Your task to perform on an android device: turn off notifications settings in the gmail app Image 0: 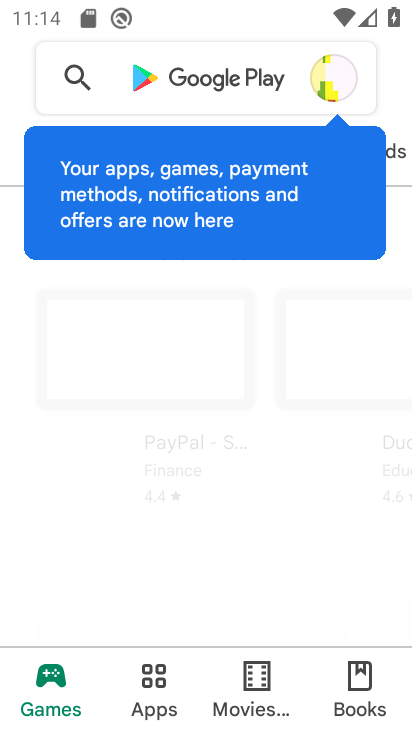
Step 0: press home button
Your task to perform on an android device: turn off notifications settings in the gmail app Image 1: 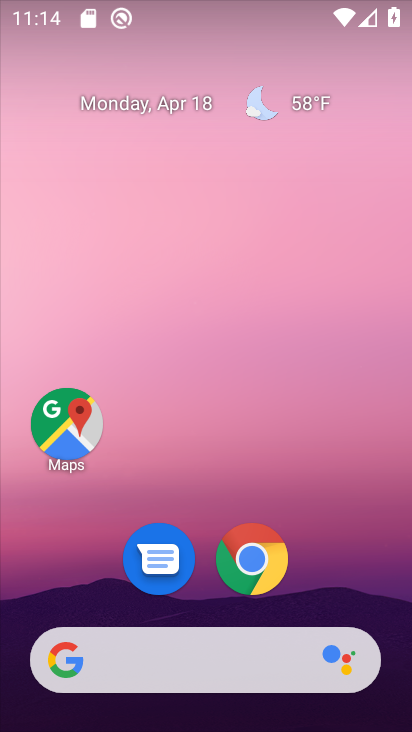
Step 1: drag from (337, 565) to (288, 58)
Your task to perform on an android device: turn off notifications settings in the gmail app Image 2: 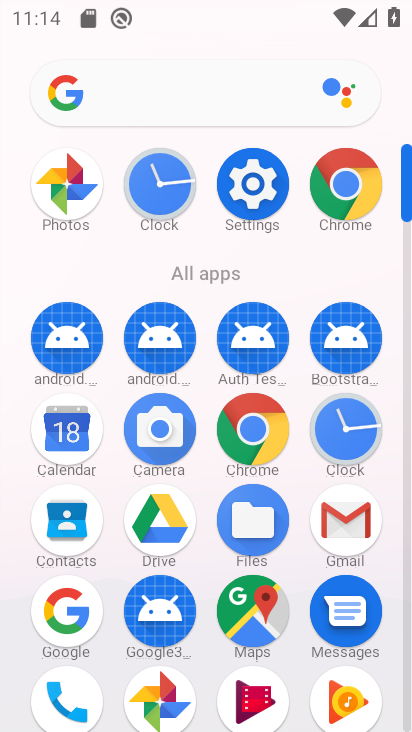
Step 2: click (351, 535)
Your task to perform on an android device: turn off notifications settings in the gmail app Image 3: 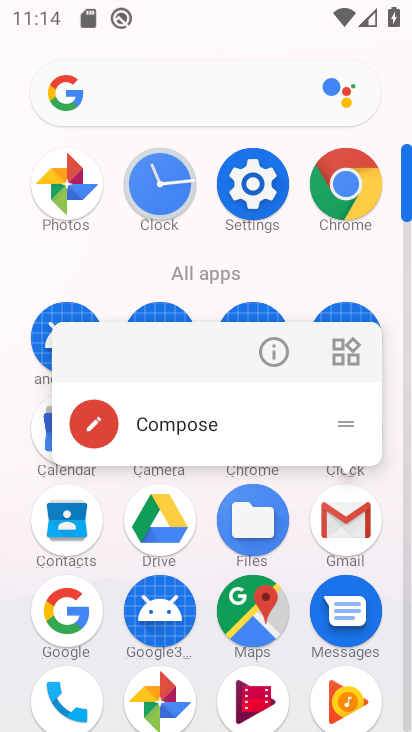
Step 3: click (351, 535)
Your task to perform on an android device: turn off notifications settings in the gmail app Image 4: 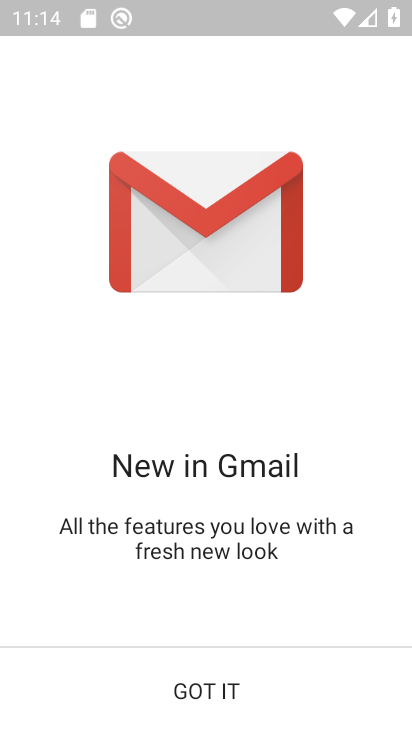
Step 4: click (186, 692)
Your task to perform on an android device: turn off notifications settings in the gmail app Image 5: 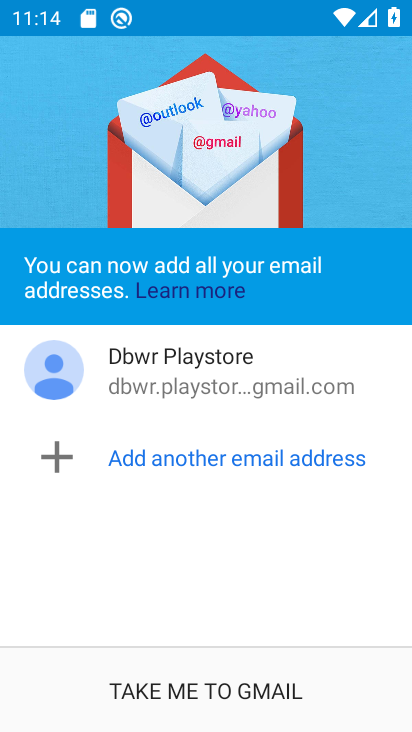
Step 5: click (207, 691)
Your task to perform on an android device: turn off notifications settings in the gmail app Image 6: 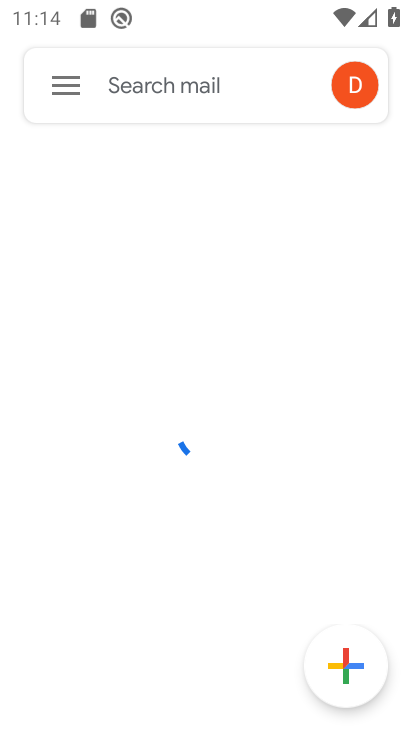
Step 6: click (63, 82)
Your task to perform on an android device: turn off notifications settings in the gmail app Image 7: 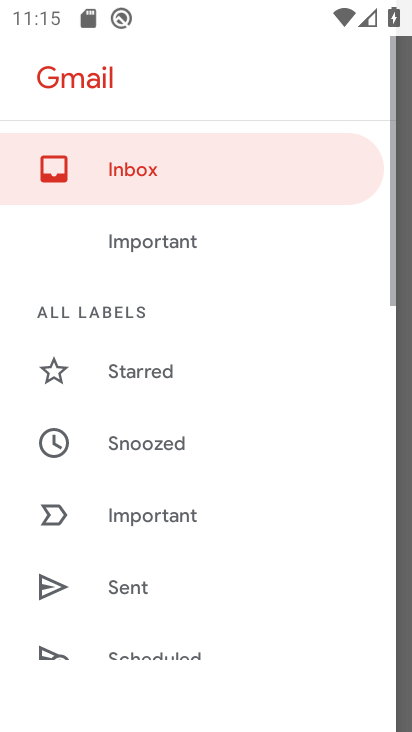
Step 7: drag from (143, 647) to (109, 215)
Your task to perform on an android device: turn off notifications settings in the gmail app Image 8: 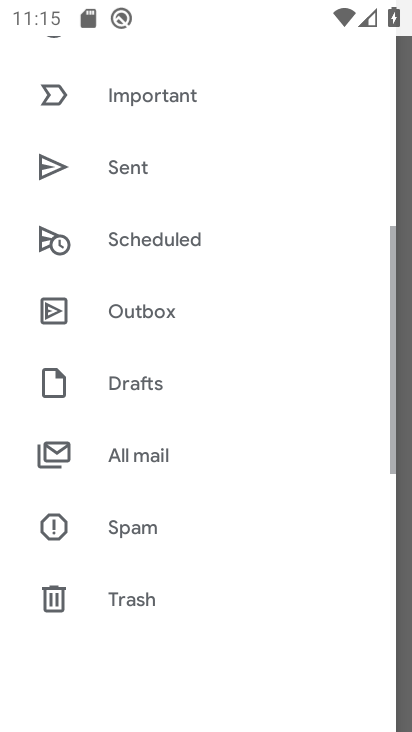
Step 8: drag from (103, 637) to (67, 282)
Your task to perform on an android device: turn off notifications settings in the gmail app Image 9: 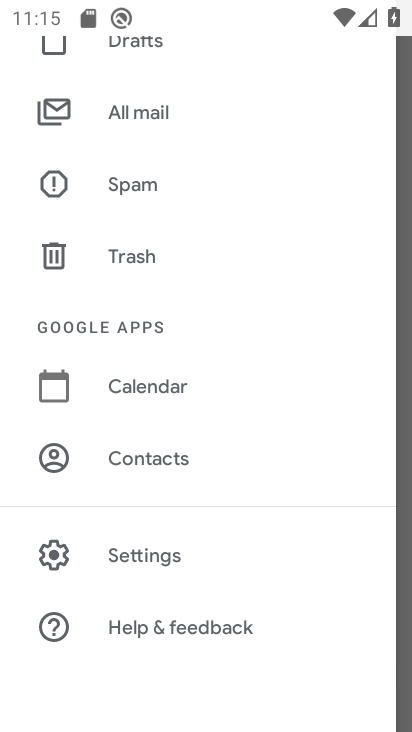
Step 9: click (126, 552)
Your task to perform on an android device: turn off notifications settings in the gmail app Image 10: 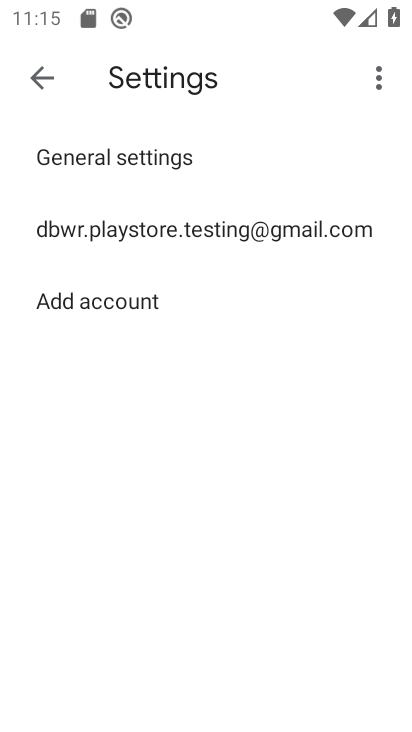
Step 10: click (218, 233)
Your task to perform on an android device: turn off notifications settings in the gmail app Image 11: 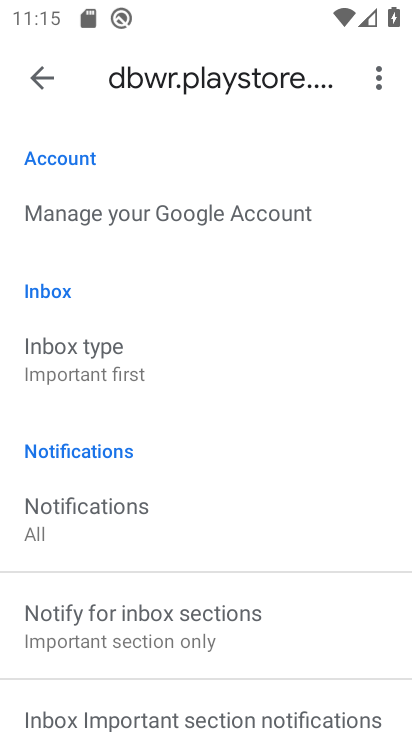
Step 11: drag from (132, 567) to (152, 292)
Your task to perform on an android device: turn off notifications settings in the gmail app Image 12: 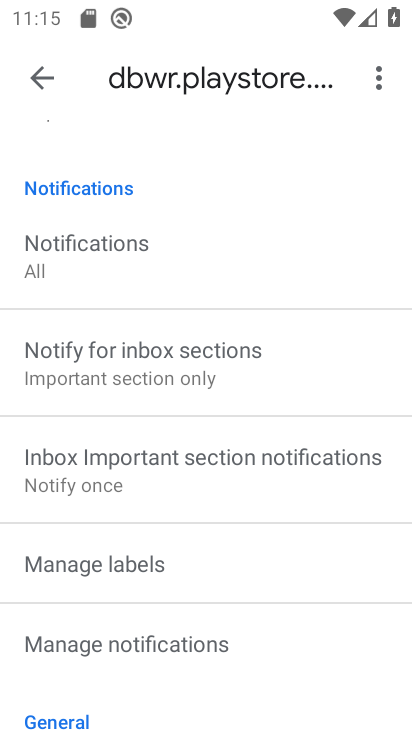
Step 12: click (157, 647)
Your task to perform on an android device: turn off notifications settings in the gmail app Image 13: 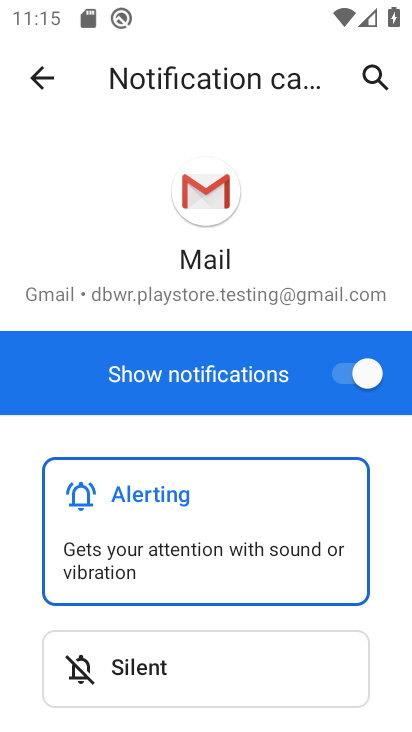
Step 13: drag from (178, 603) to (199, 324)
Your task to perform on an android device: turn off notifications settings in the gmail app Image 14: 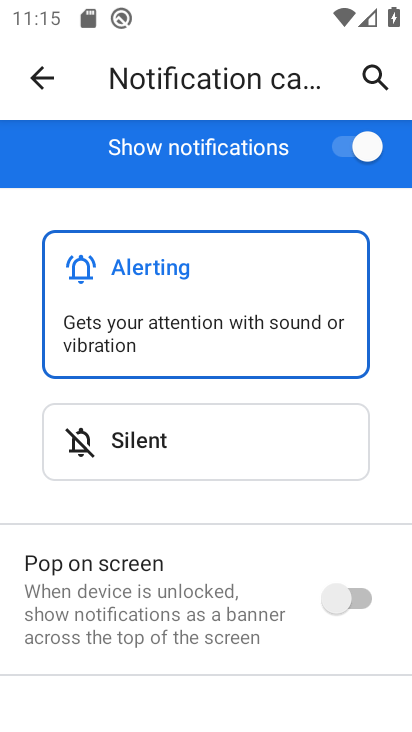
Step 14: click (369, 146)
Your task to perform on an android device: turn off notifications settings in the gmail app Image 15: 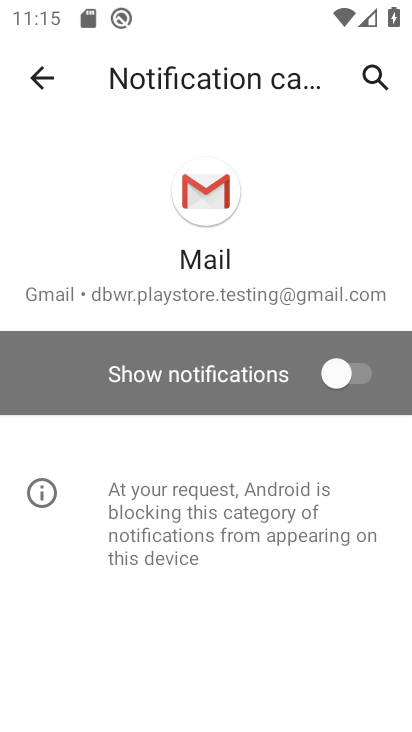
Step 15: task complete